Your task to perform on an android device: find which apps use the phone's location Image 0: 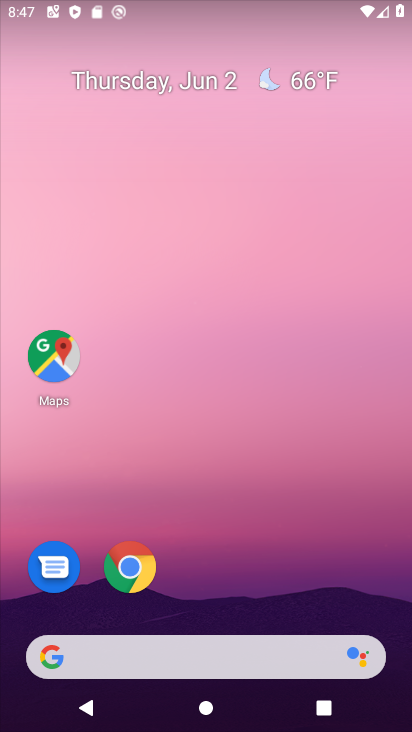
Step 0: drag from (217, 582) to (250, 257)
Your task to perform on an android device: find which apps use the phone's location Image 1: 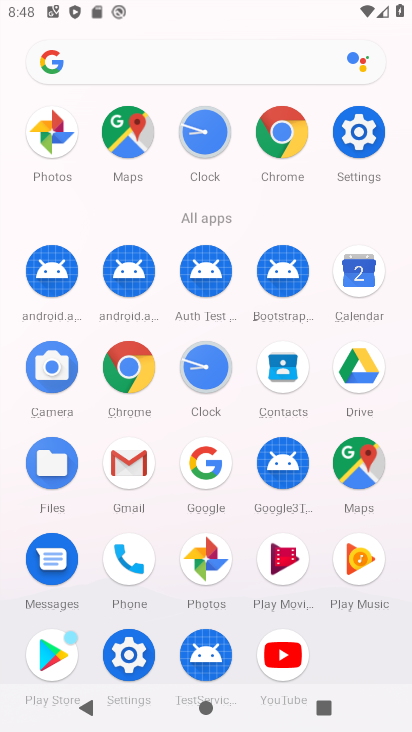
Step 1: click (121, 668)
Your task to perform on an android device: find which apps use the phone's location Image 2: 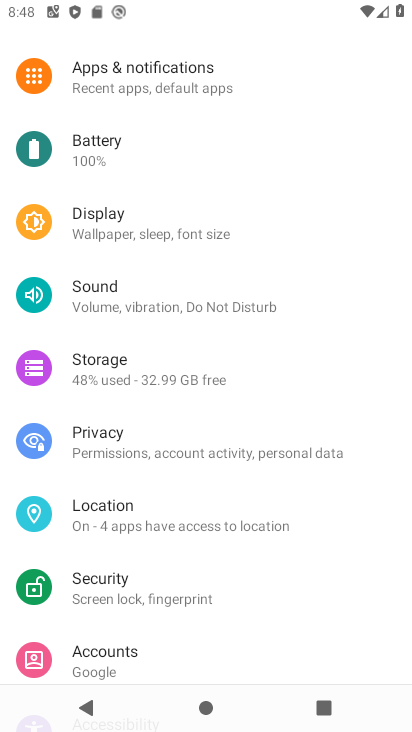
Step 2: click (166, 523)
Your task to perform on an android device: find which apps use the phone's location Image 3: 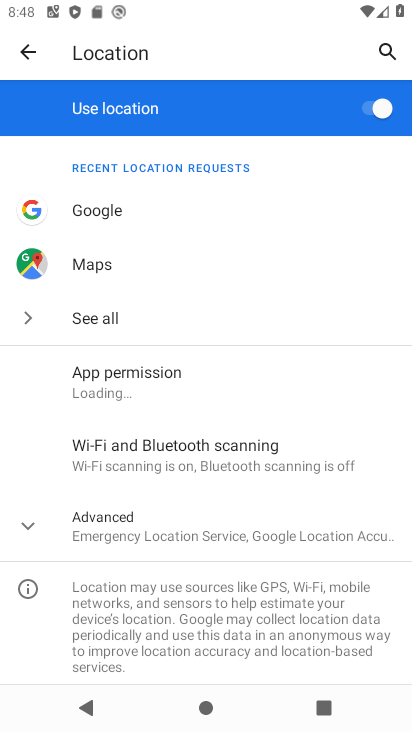
Step 3: click (190, 381)
Your task to perform on an android device: find which apps use the phone's location Image 4: 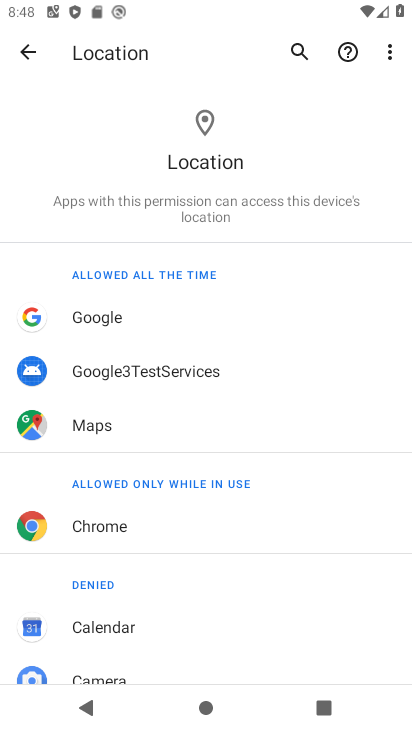
Step 4: task complete